Your task to perform on an android device: Open Google Maps Image 0: 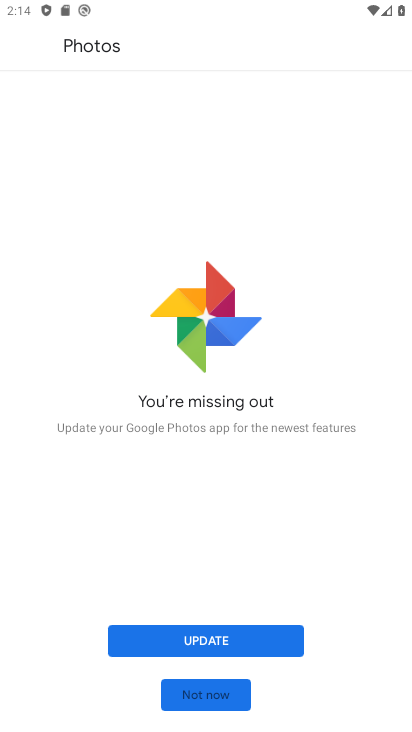
Step 0: press home button
Your task to perform on an android device: Open Google Maps Image 1: 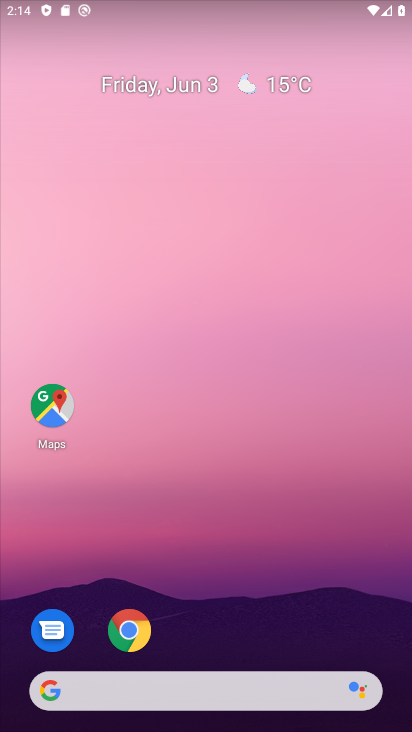
Step 1: click (50, 433)
Your task to perform on an android device: Open Google Maps Image 2: 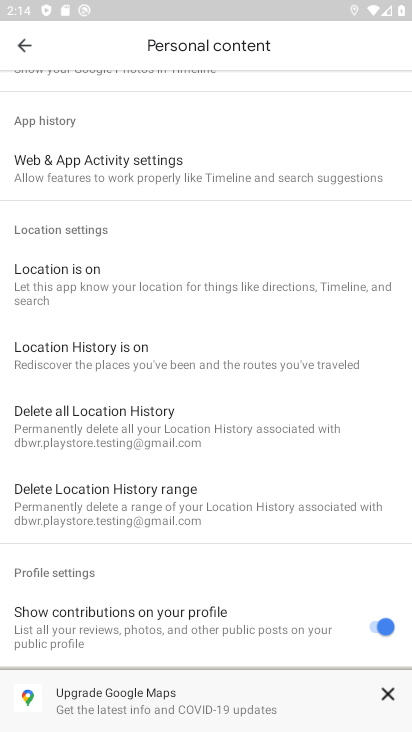
Step 2: task complete